Your task to perform on an android device: Check the weather Image 0: 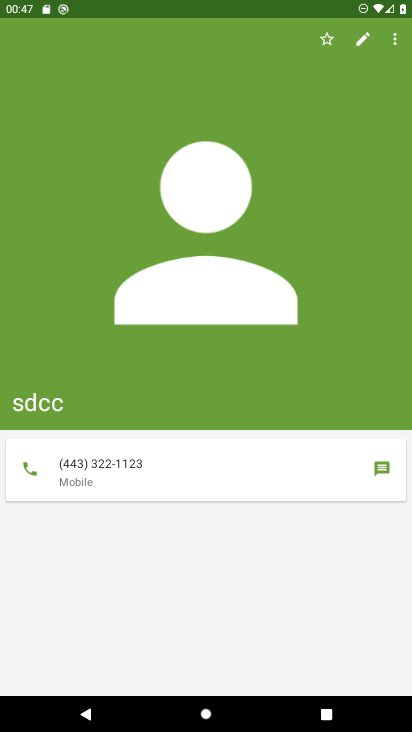
Step 0: press home button
Your task to perform on an android device: Check the weather Image 1: 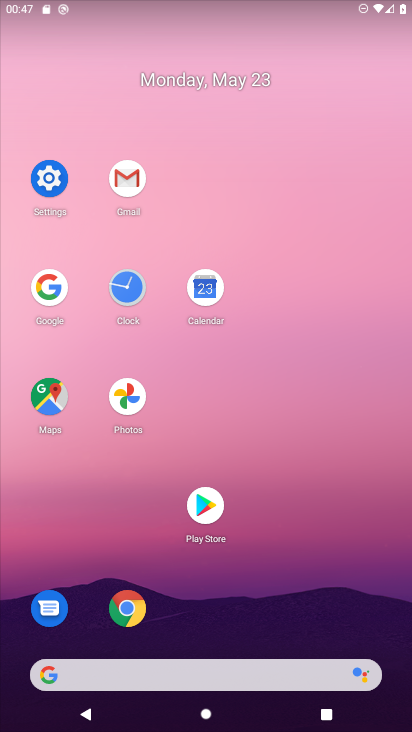
Step 1: click (51, 302)
Your task to perform on an android device: Check the weather Image 2: 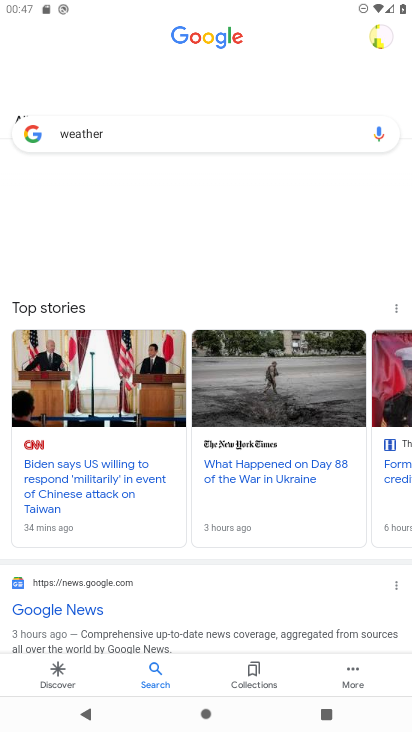
Step 2: click (192, 127)
Your task to perform on an android device: Check the weather Image 3: 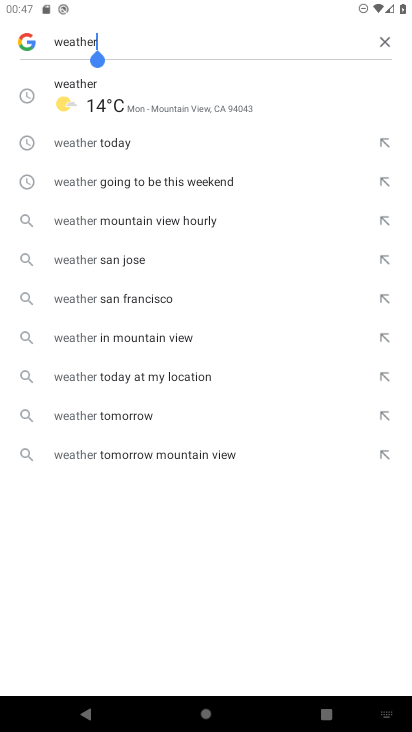
Step 3: click (131, 106)
Your task to perform on an android device: Check the weather Image 4: 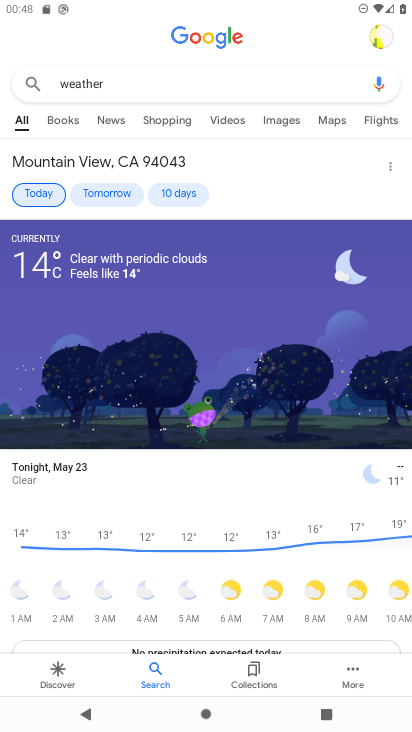
Step 4: task complete